Your task to perform on an android device: Open Maps and search for coffee Image 0: 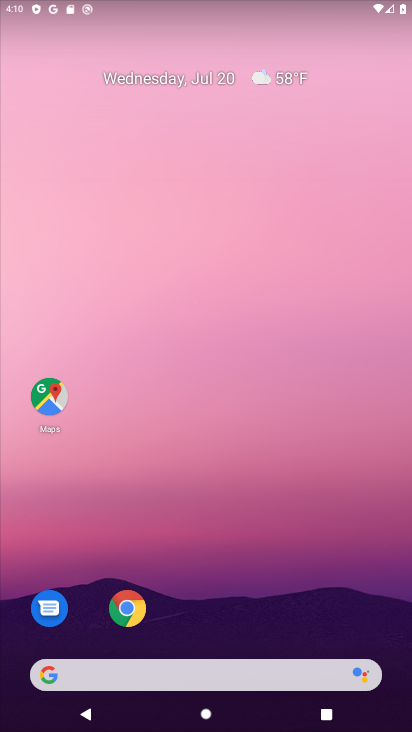
Step 0: click (59, 408)
Your task to perform on an android device: Open Maps and search for coffee Image 1: 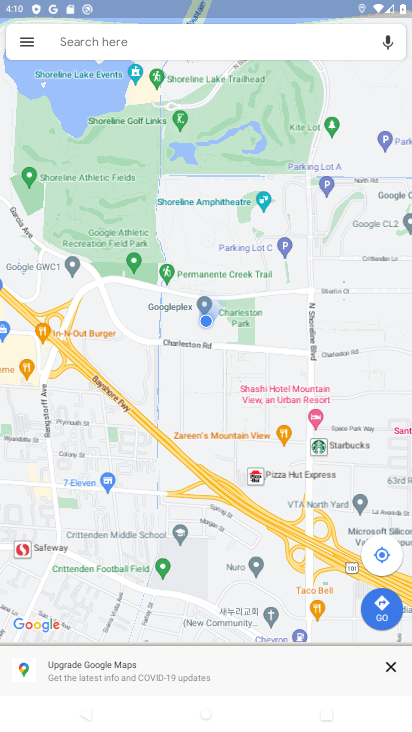
Step 1: click (147, 43)
Your task to perform on an android device: Open Maps and search for coffee Image 2: 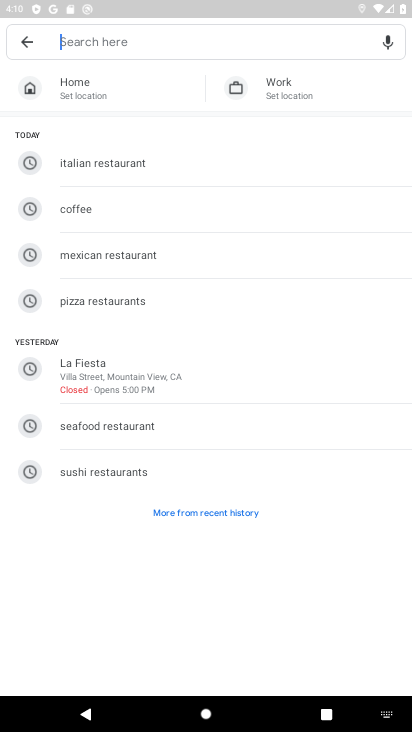
Step 2: type "coffee"
Your task to perform on an android device: Open Maps and search for coffee Image 3: 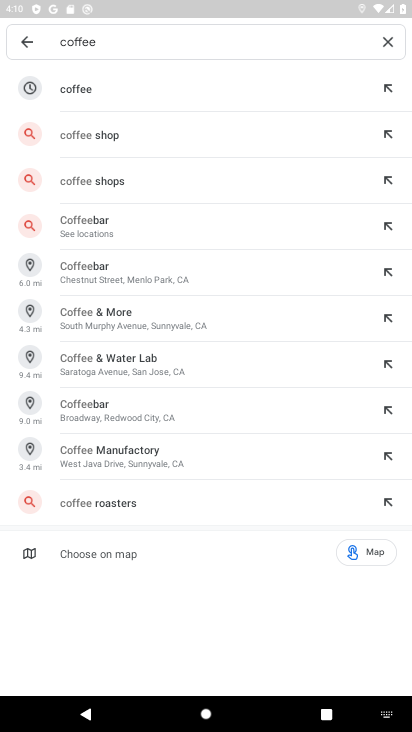
Step 3: click (108, 86)
Your task to perform on an android device: Open Maps and search for coffee Image 4: 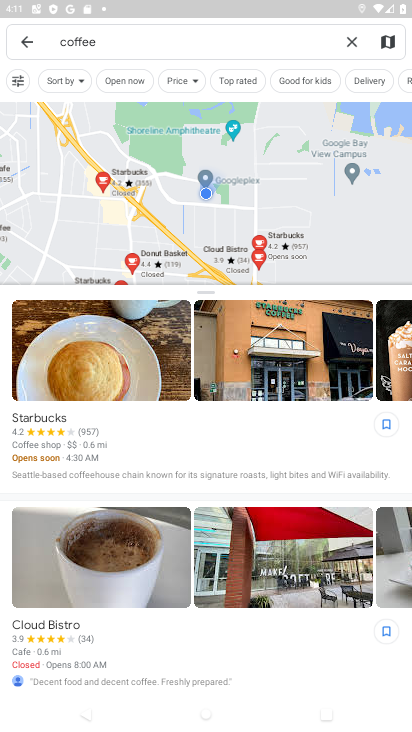
Step 4: task complete